Your task to perform on an android device: Find coffee shops on Maps Image 0: 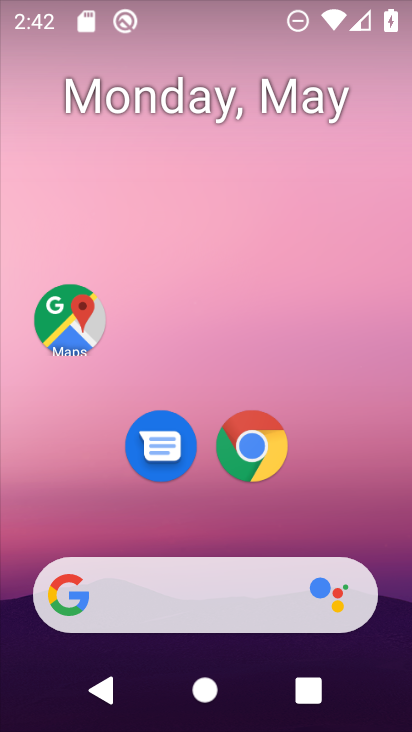
Step 0: click (83, 310)
Your task to perform on an android device: Find coffee shops on Maps Image 1: 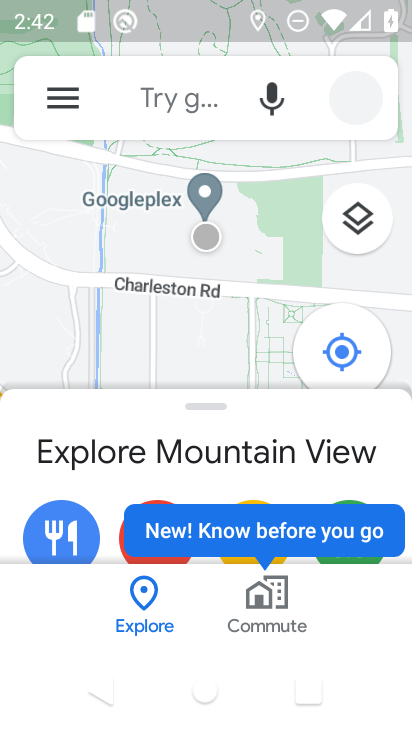
Step 1: click (169, 95)
Your task to perform on an android device: Find coffee shops on Maps Image 2: 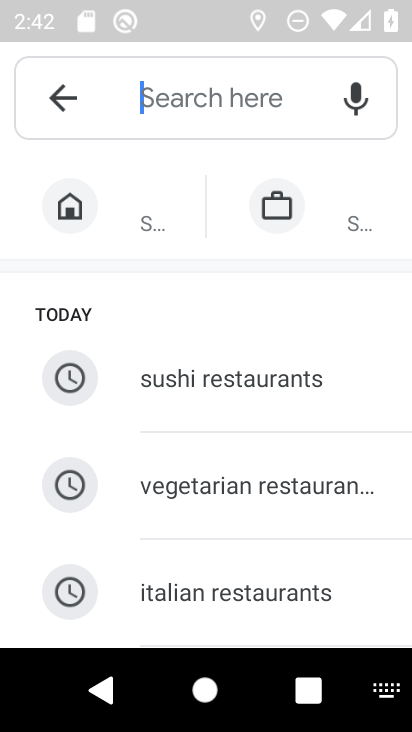
Step 2: type "coffe"
Your task to perform on an android device: Find coffee shops on Maps Image 3: 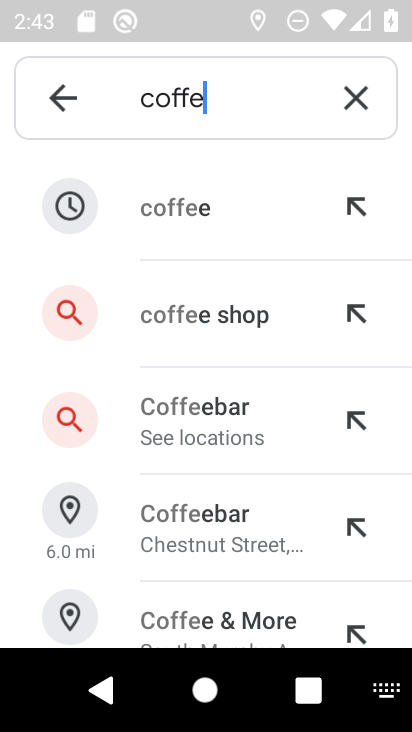
Step 3: click (193, 211)
Your task to perform on an android device: Find coffee shops on Maps Image 4: 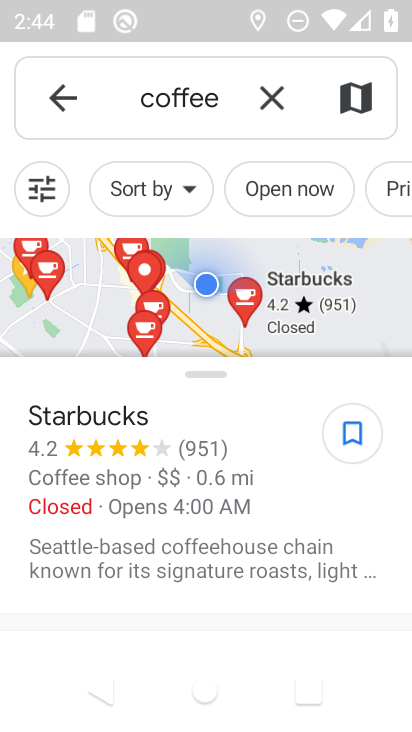
Step 4: task complete